Your task to perform on an android device: Open calendar and show me the second week of next month Image 0: 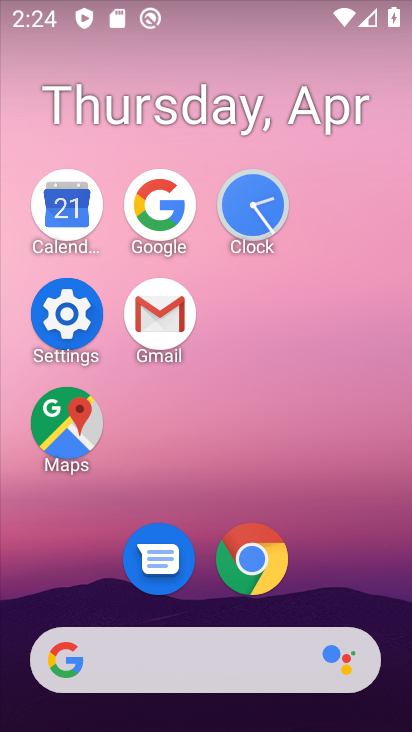
Step 0: click (61, 207)
Your task to perform on an android device: Open calendar and show me the second week of next month Image 1: 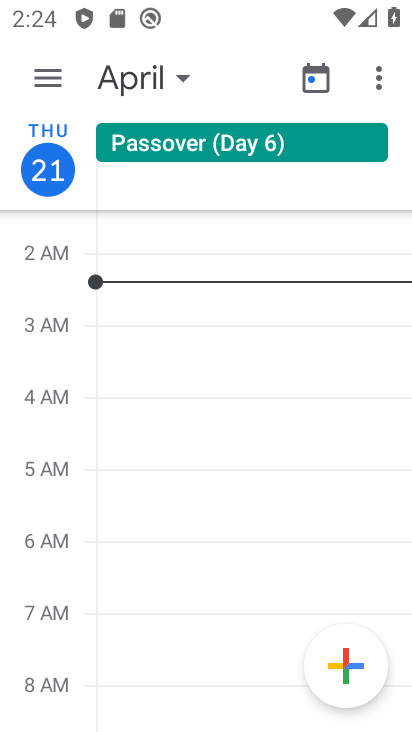
Step 1: click (174, 71)
Your task to perform on an android device: Open calendar and show me the second week of next month Image 2: 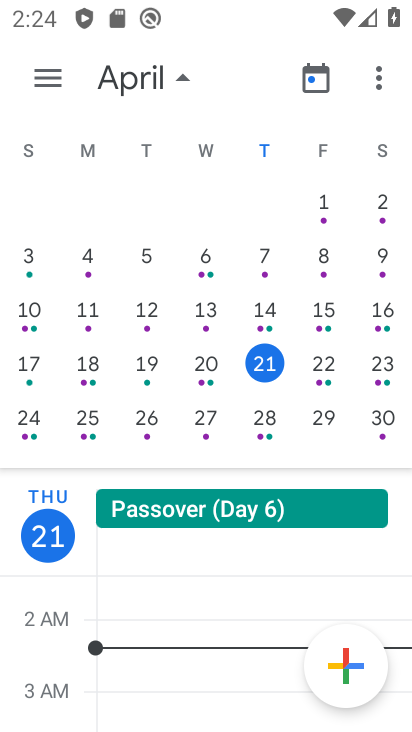
Step 2: drag from (133, 326) to (21, 250)
Your task to perform on an android device: Open calendar and show me the second week of next month Image 3: 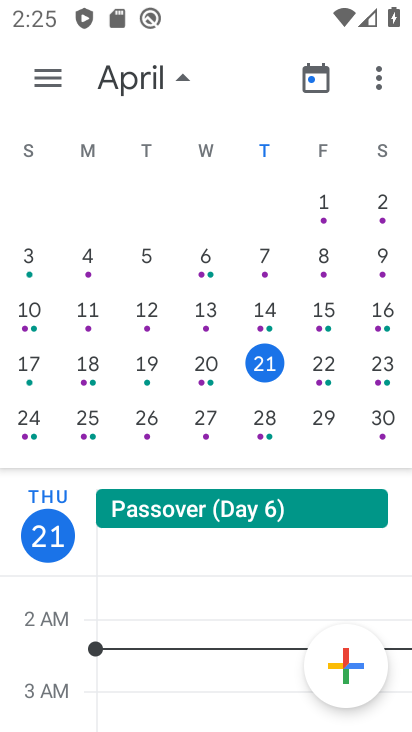
Step 3: drag from (395, 303) to (49, 237)
Your task to perform on an android device: Open calendar and show me the second week of next month Image 4: 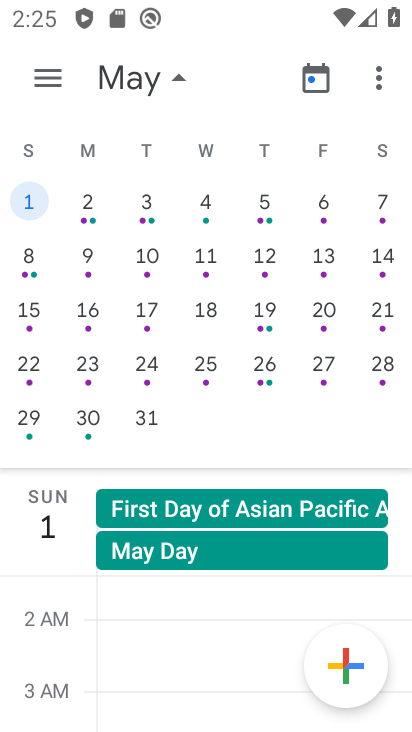
Step 4: click (58, 80)
Your task to perform on an android device: Open calendar and show me the second week of next month Image 5: 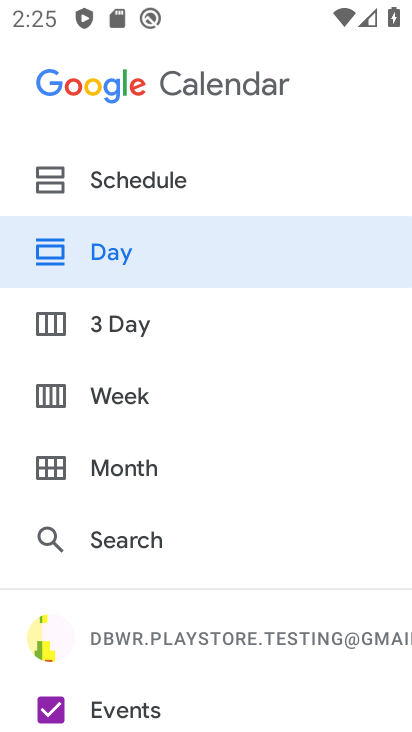
Step 5: click (161, 412)
Your task to perform on an android device: Open calendar and show me the second week of next month Image 6: 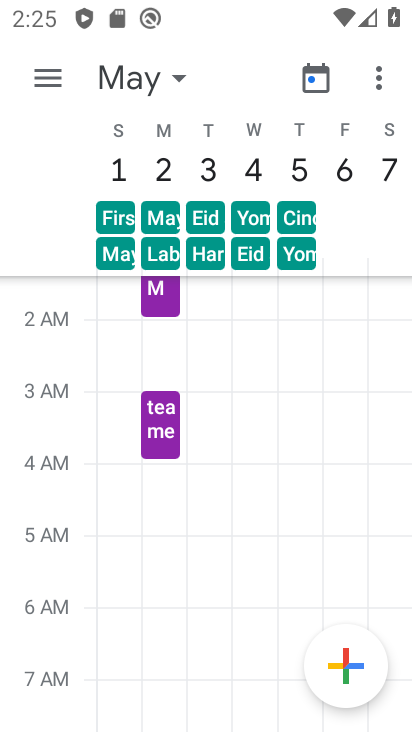
Step 6: task complete